Your task to perform on an android device: Go to sound settings Image 0: 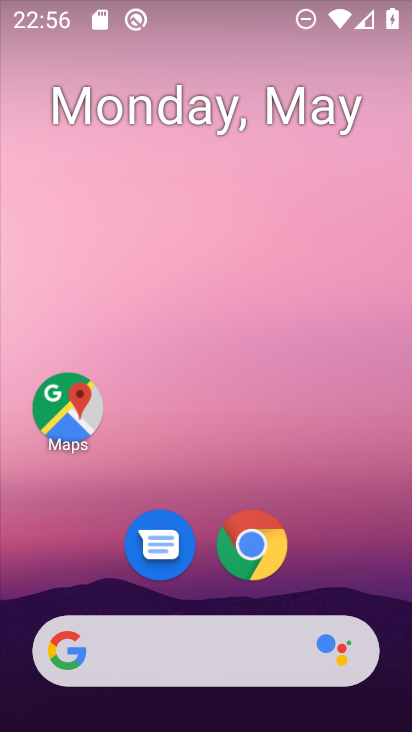
Step 0: drag from (324, 490) to (190, 16)
Your task to perform on an android device: Go to sound settings Image 1: 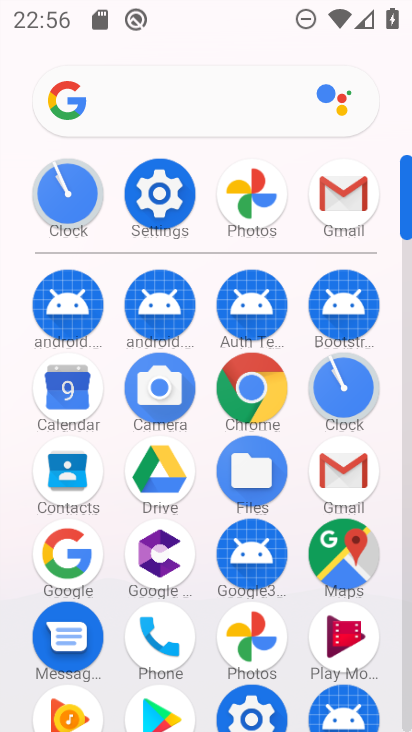
Step 1: click (160, 199)
Your task to perform on an android device: Go to sound settings Image 2: 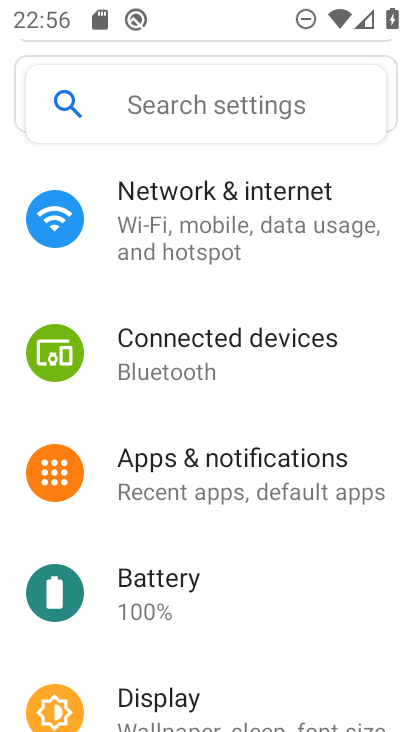
Step 2: drag from (230, 619) to (229, 159)
Your task to perform on an android device: Go to sound settings Image 3: 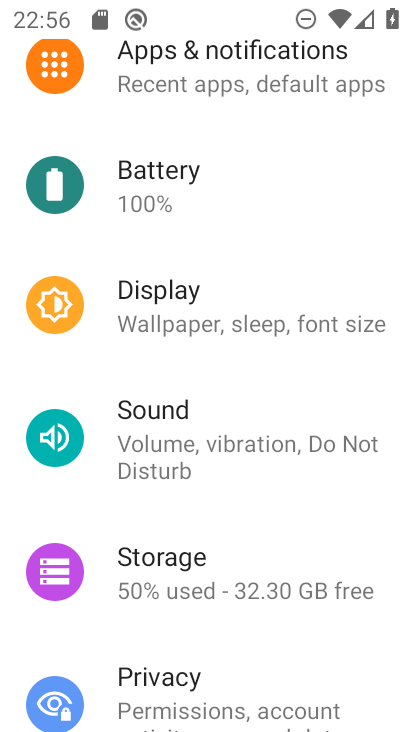
Step 3: click (165, 412)
Your task to perform on an android device: Go to sound settings Image 4: 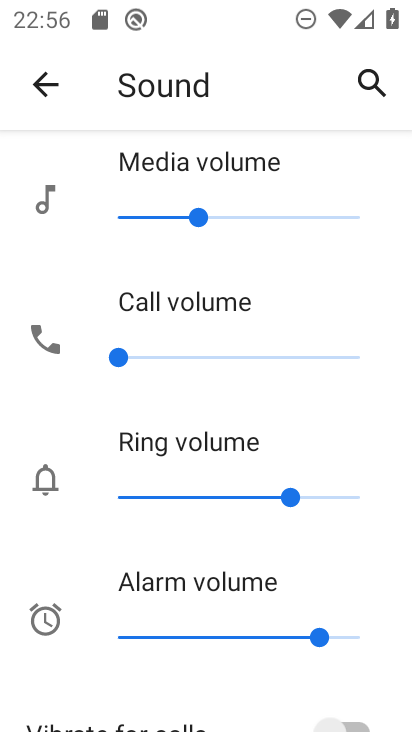
Step 4: task complete